Your task to perform on an android device: Play the last video I watched on Youtube Image 0: 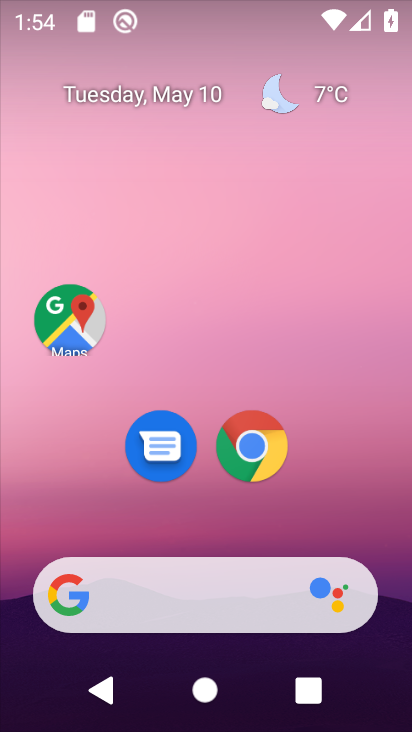
Step 0: drag from (333, 487) to (339, 209)
Your task to perform on an android device: Play the last video I watched on Youtube Image 1: 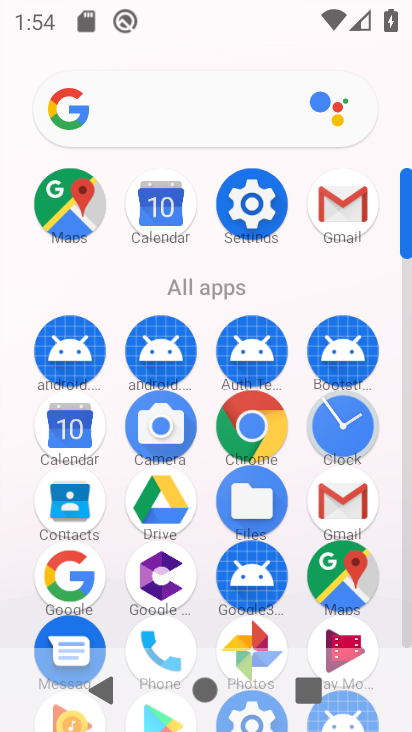
Step 1: drag from (360, 576) to (359, 82)
Your task to perform on an android device: Play the last video I watched on Youtube Image 2: 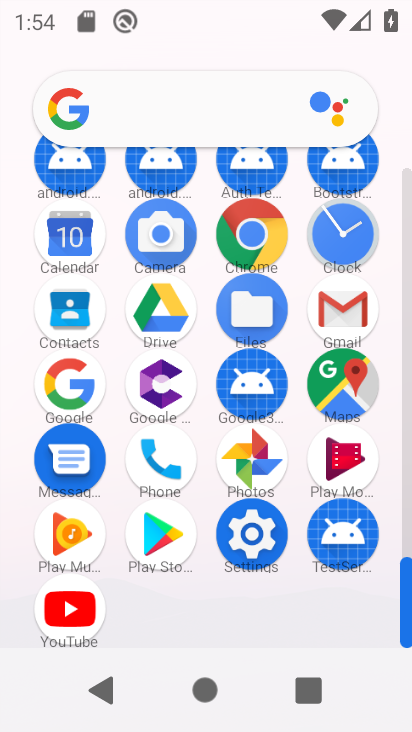
Step 2: click (50, 614)
Your task to perform on an android device: Play the last video I watched on Youtube Image 3: 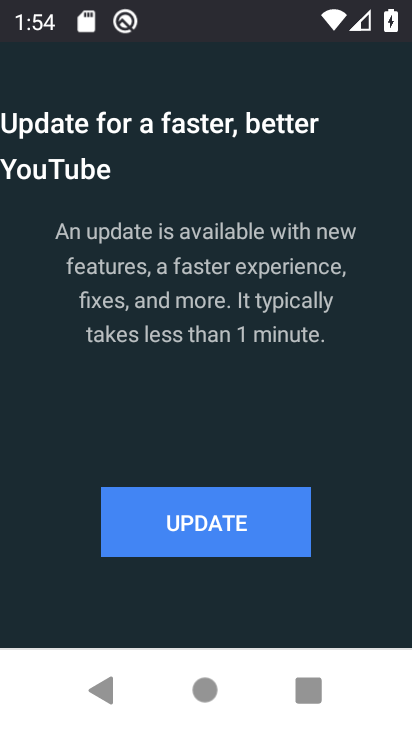
Step 3: click (260, 530)
Your task to perform on an android device: Play the last video I watched on Youtube Image 4: 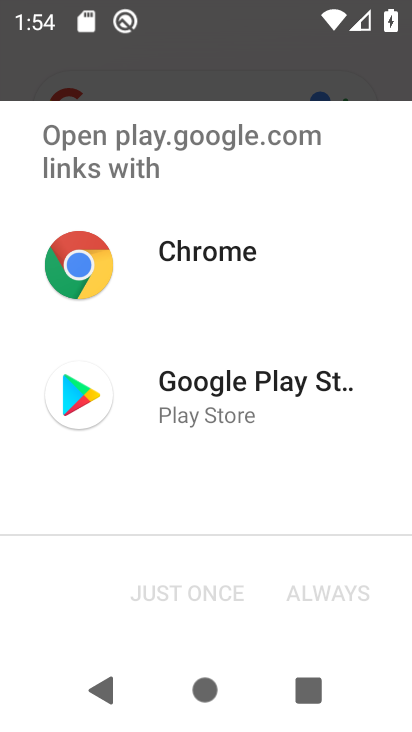
Step 4: click (235, 421)
Your task to perform on an android device: Play the last video I watched on Youtube Image 5: 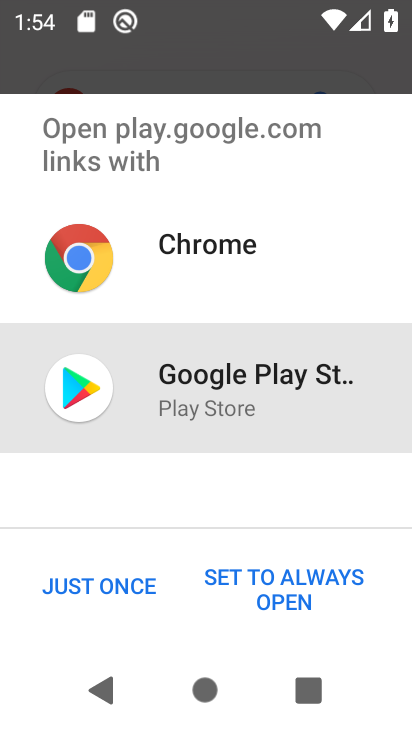
Step 5: click (122, 595)
Your task to perform on an android device: Play the last video I watched on Youtube Image 6: 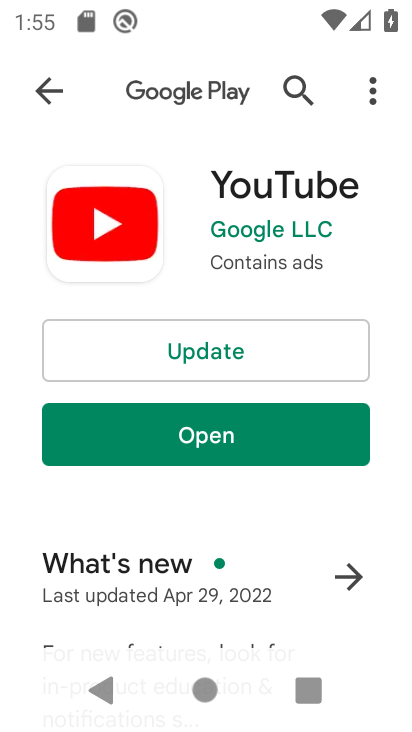
Step 6: click (199, 347)
Your task to perform on an android device: Play the last video I watched on Youtube Image 7: 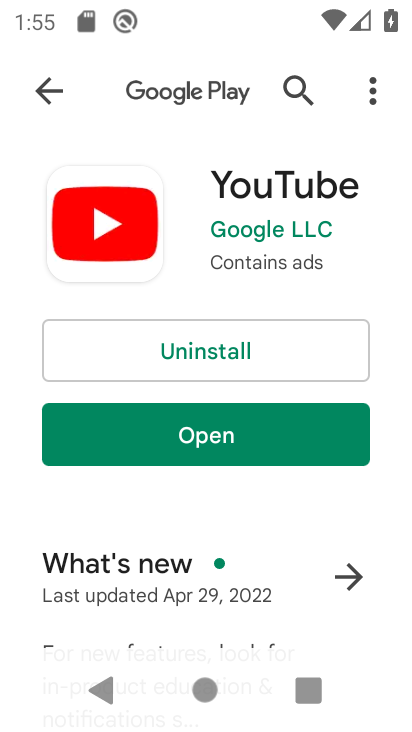
Step 7: click (126, 428)
Your task to perform on an android device: Play the last video I watched on Youtube Image 8: 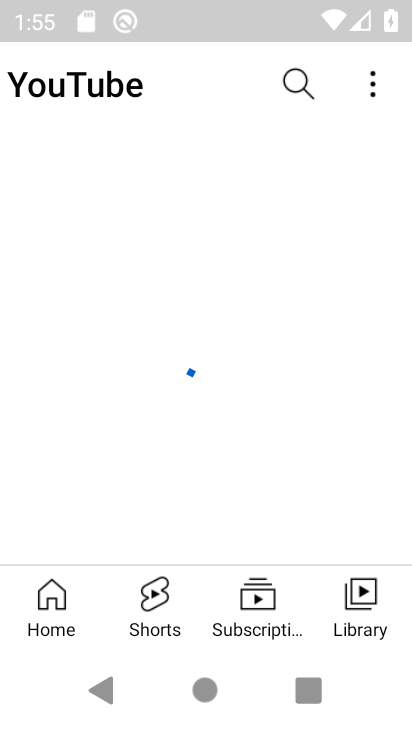
Step 8: click (373, 637)
Your task to perform on an android device: Play the last video I watched on Youtube Image 9: 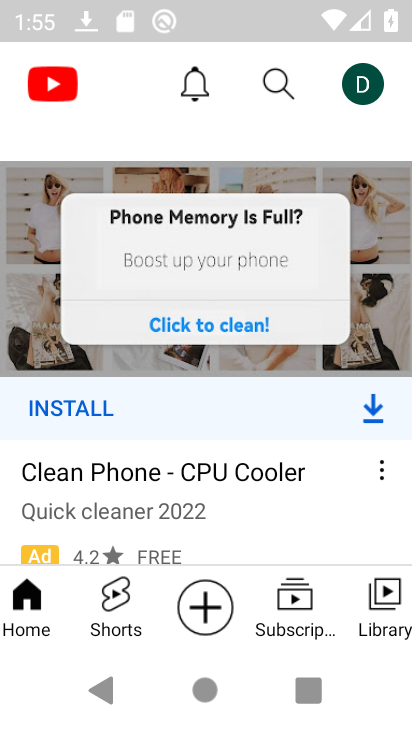
Step 9: drag from (268, 497) to (284, 295)
Your task to perform on an android device: Play the last video I watched on Youtube Image 10: 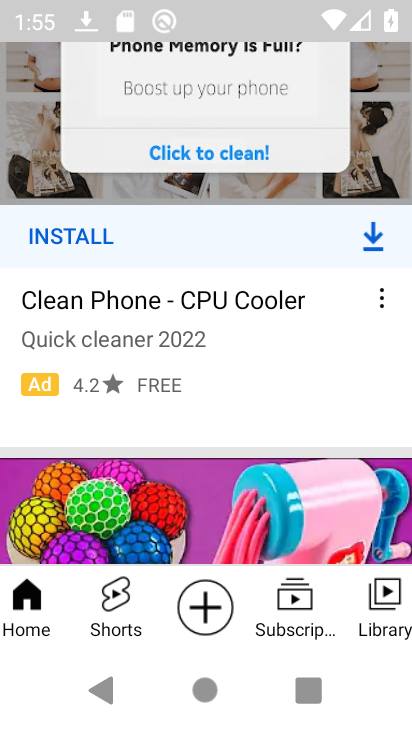
Step 10: click (375, 606)
Your task to perform on an android device: Play the last video I watched on Youtube Image 11: 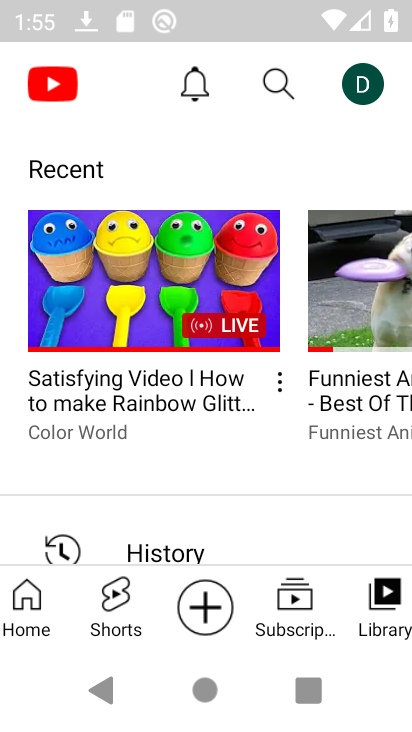
Step 11: drag from (278, 520) to (259, 302)
Your task to perform on an android device: Play the last video I watched on Youtube Image 12: 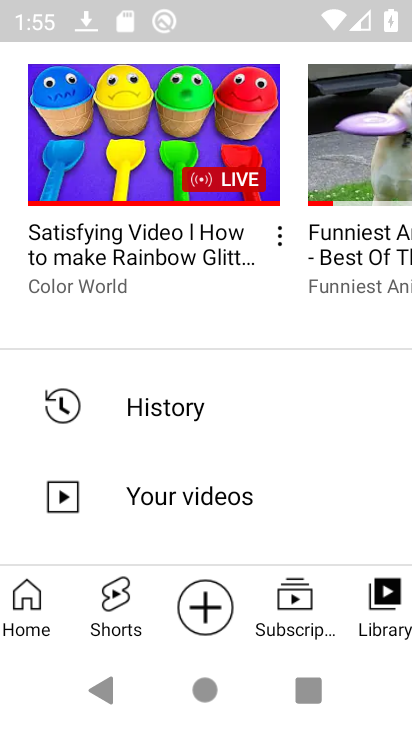
Step 12: click (167, 390)
Your task to perform on an android device: Play the last video I watched on Youtube Image 13: 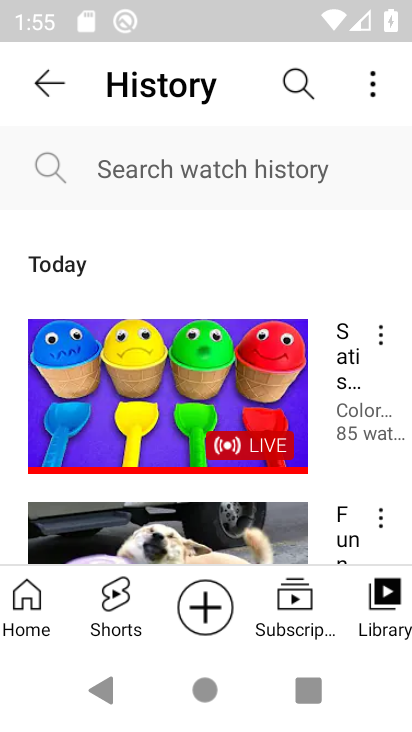
Step 13: click (156, 373)
Your task to perform on an android device: Play the last video I watched on Youtube Image 14: 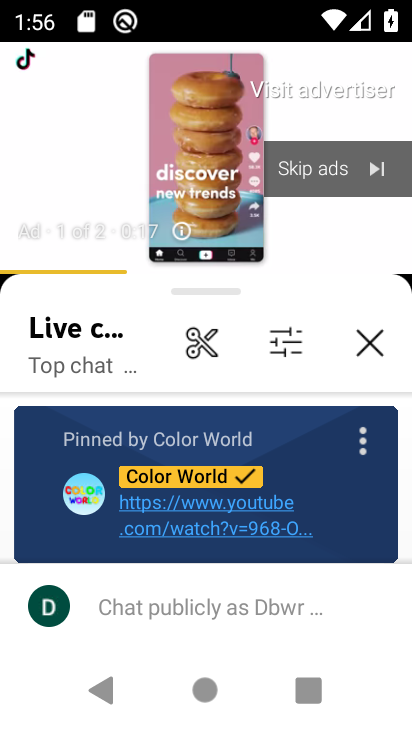
Step 14: click (366, 190)
Your task to perform on an android device: Play the last video I watched on Youtube Image 15: 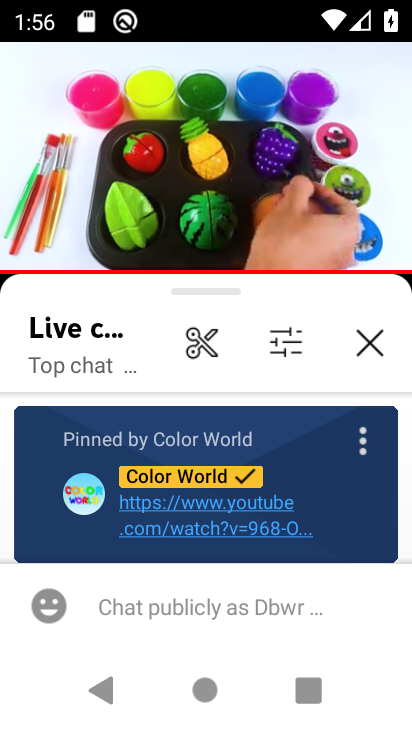
Step 15: task complete